Your task to perform on an android device: delete the emails in spam in the gmail app Image 0: 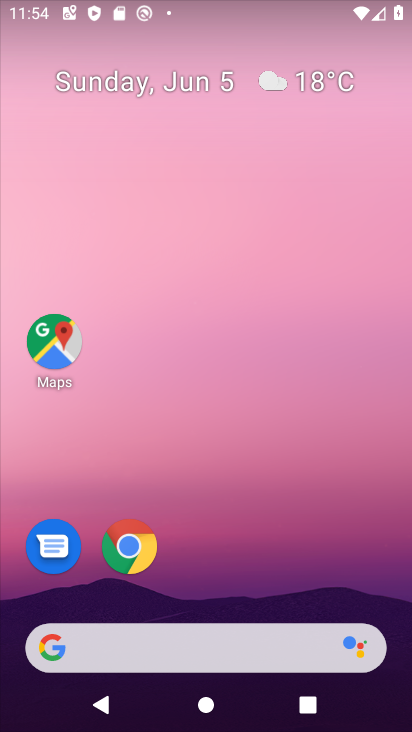
Step 0: drag from (270, 571) to (217, 191)
Your task to perform on an android device: delete the emails in spam in the gmail app Image 1: 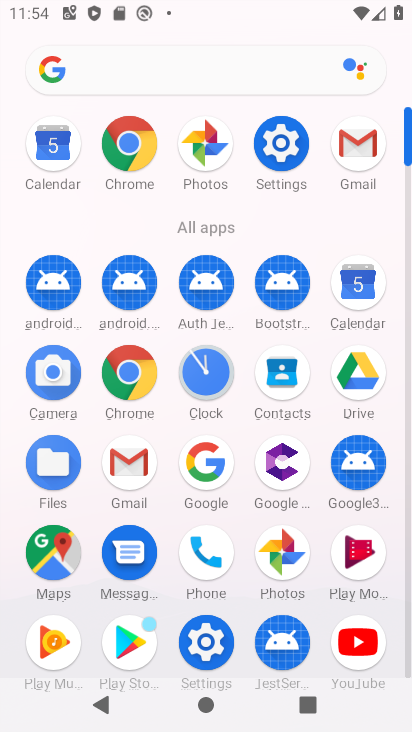
Step 1: click (355, 144)
Your task to perform on an android device: delete the emails in spam in the gmail app Image 2: 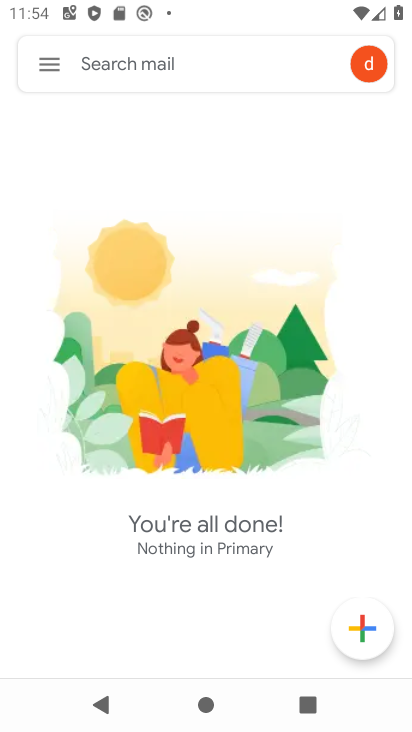
Step 2: click (25, 55)
Your task to perform on an android device: delete the emails in spam in the gmail app Image 3: 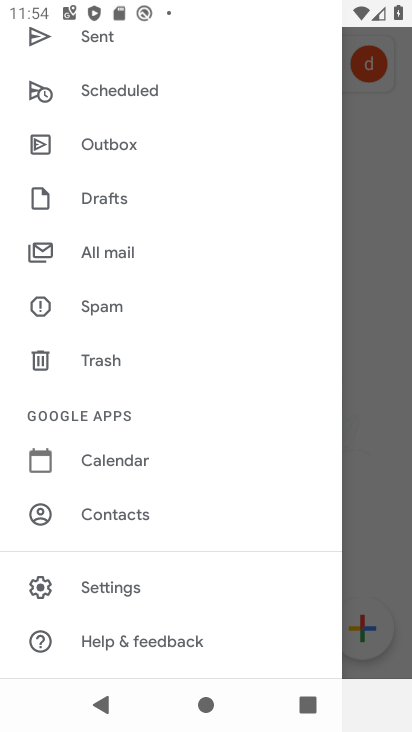
Step 3: click (152, 313)
Your task to perform on an android device: delete the emails in spam in the gmail app Image 4: 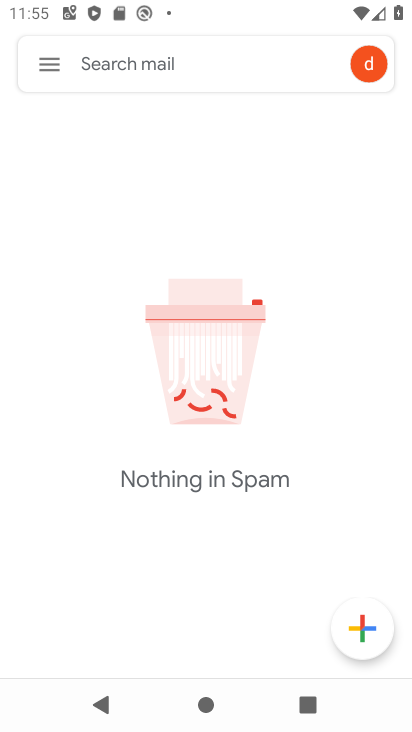
Step 4: task complete